Your task to perform on an android device: Go to settings Image 0: 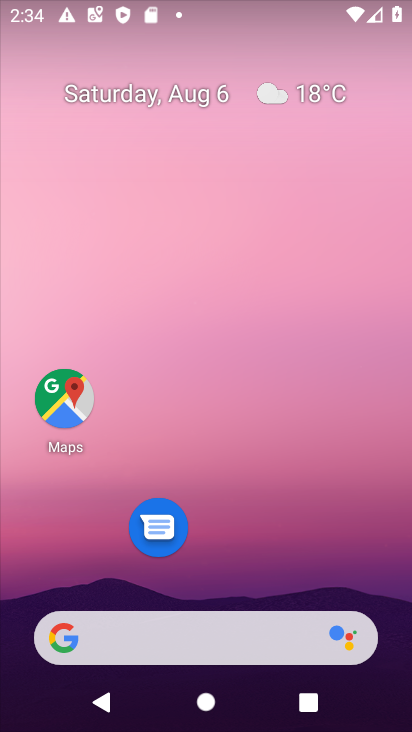
Step 0: drag from (249, 578) to (273, 114)
Your task to perform on an android device: Go to settings Image 1: 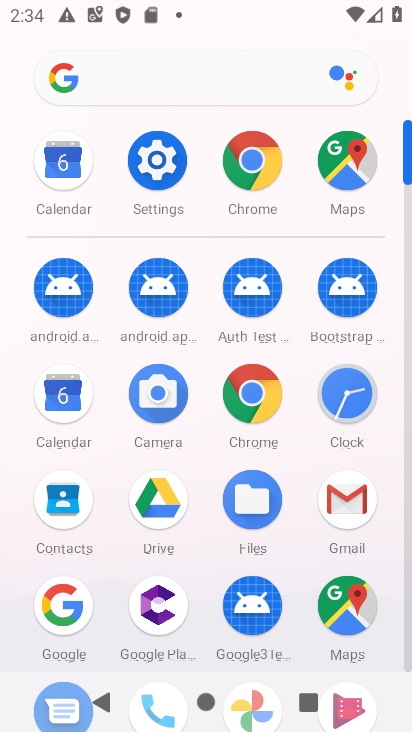
Step 1: drag from (205, 242) to (211, 35)
Your task to perform on an android device: Go to settings Image 2: 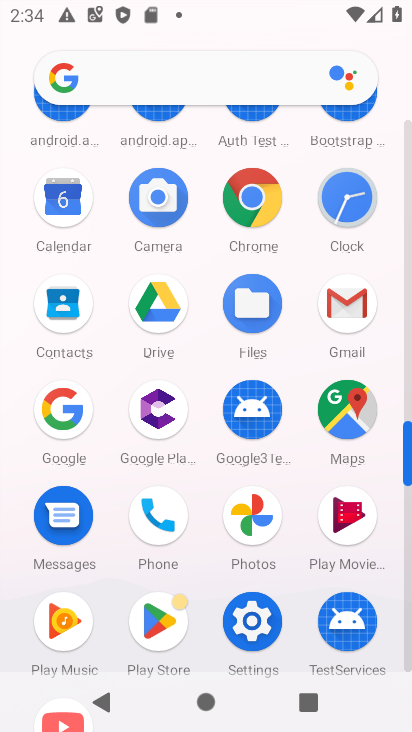
Step 2: click (267, 622)
Your task to perform on an android device: Go to settings Image 3: 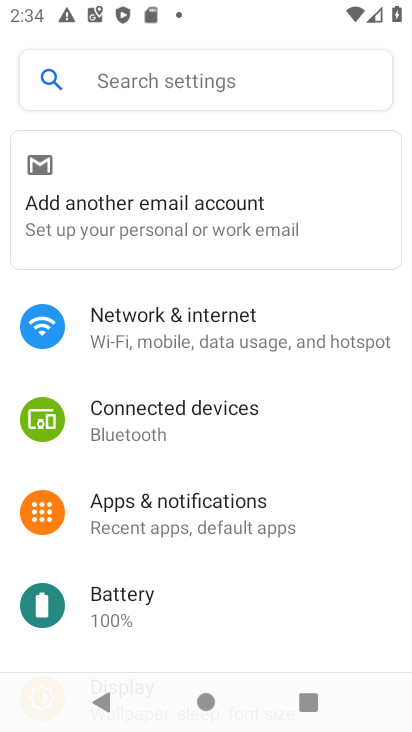
Step 3: task complete